Your task to perform on an android device: Open calendar and show me the second week of next month Image 0: 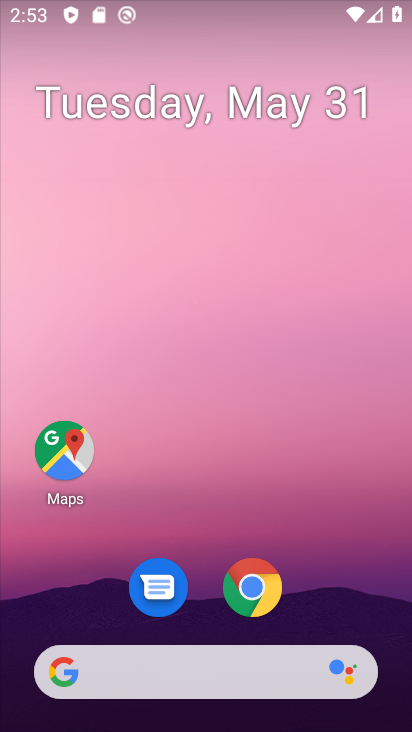
Step 0: drag from (317, 603) to (325, 43)
Your task to perform on an android device: Open calendar and show me the second week of next month Image 1: 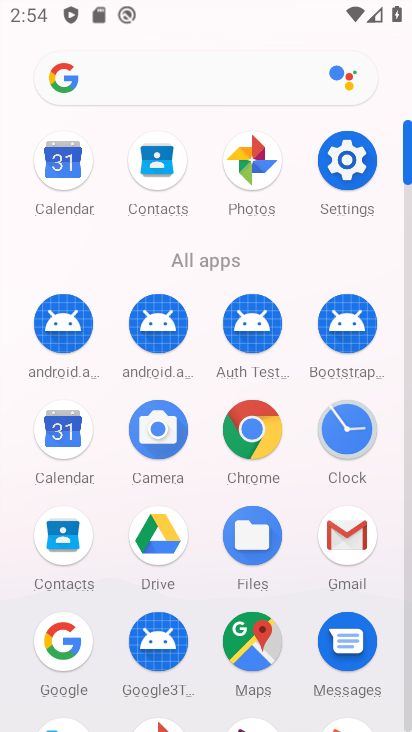
Step 1: click (56, 445)
Your task to perform on an android device: Open calendar and show me the second week of next month Image 2: 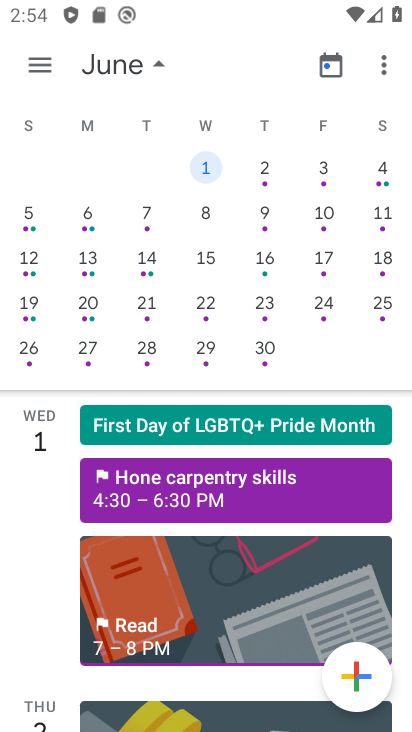
Step 2: click (23, 222)
Your task to perform on an android device: Open calendar and show me the second week of next month Image 3: 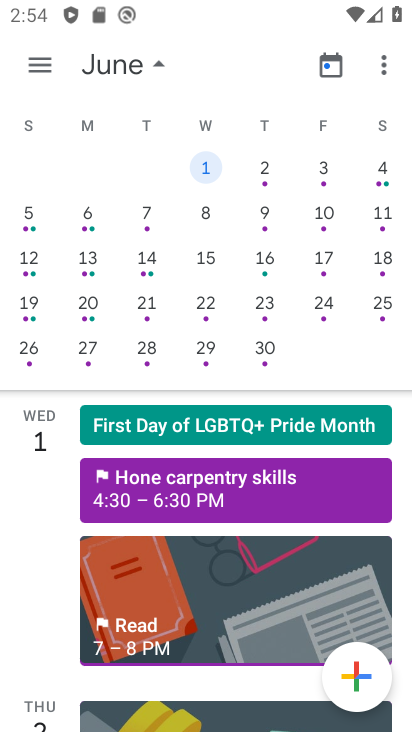
Step 3: click (27, 225)
Your task to perform on an android device: Open calendar and show me the second week of next month Image 4: 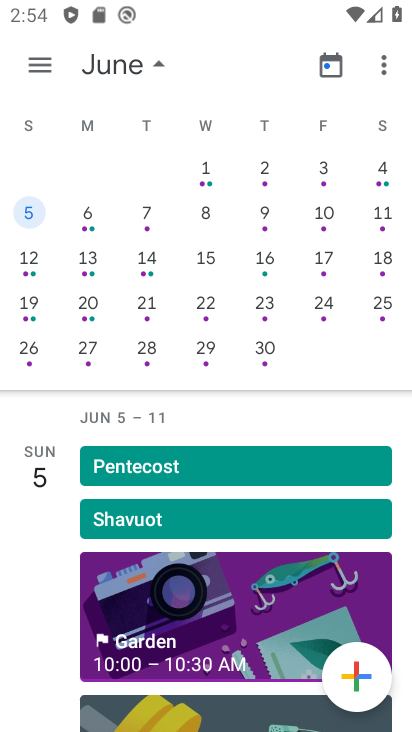
Step 4: task complete